Your task to perform on an android device: Open Chrome and go to settings Image 0: 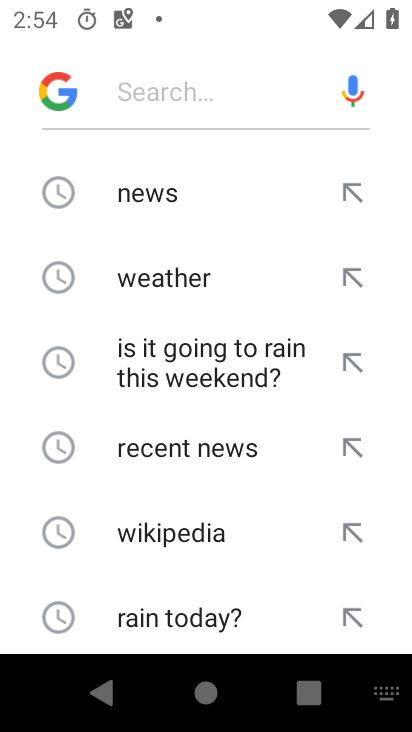
Step 0: press home button
Your task to perform on an android device: Open Chrome and go to settings Image 1: 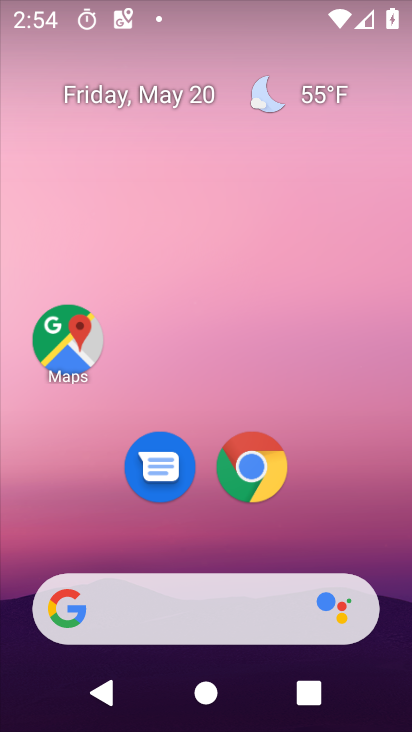
Step 1: click (239, 478)
Your task to perform on an android device: Open Chrome and go to settings Image 2: 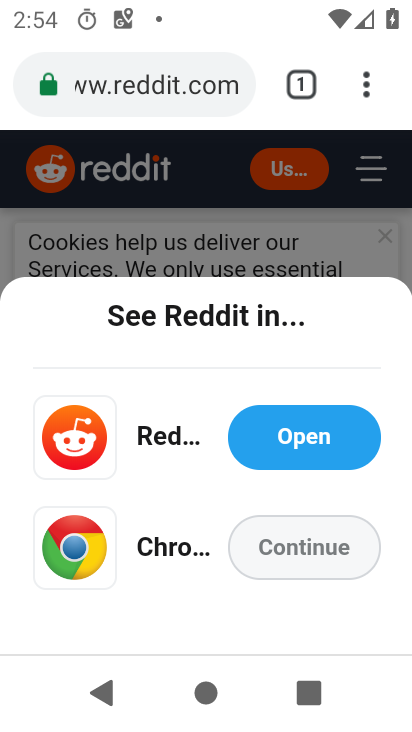
Step 2: click (374, 85)
Your task to perform on an android device: Open Chrome and go to settings Image 3: 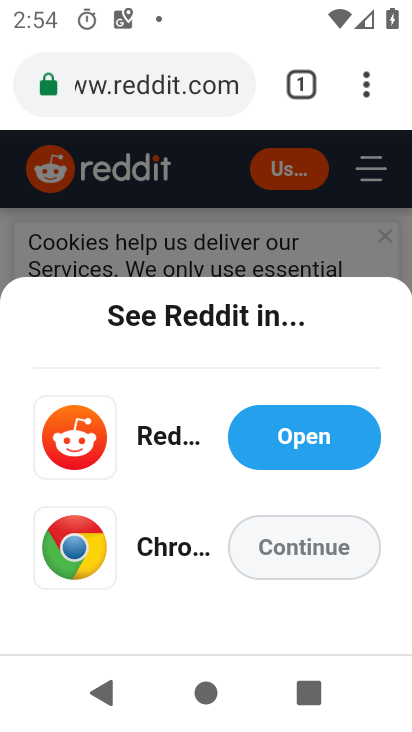
Step 3: click (362, 96)
Your task to perform on an android device: Open Chrome and go to settings Image 4: 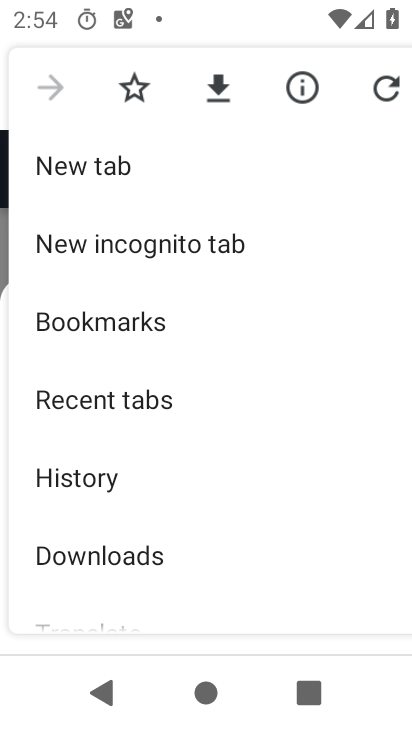
Step 4: drag from (150, 590) to (181, 327)
Your task to perform on an android device: Open Chrome and go to settings Image 5: 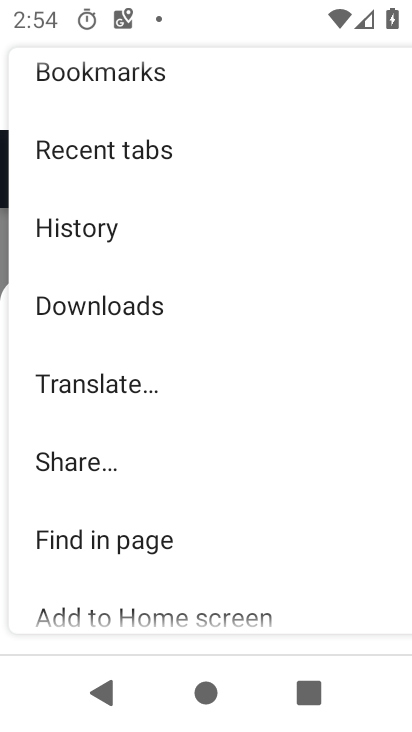
Step 5: drag from (95, 586) to (60, 309)
Your task to perform on an android device: Open Chrome and go to settings Image 6: 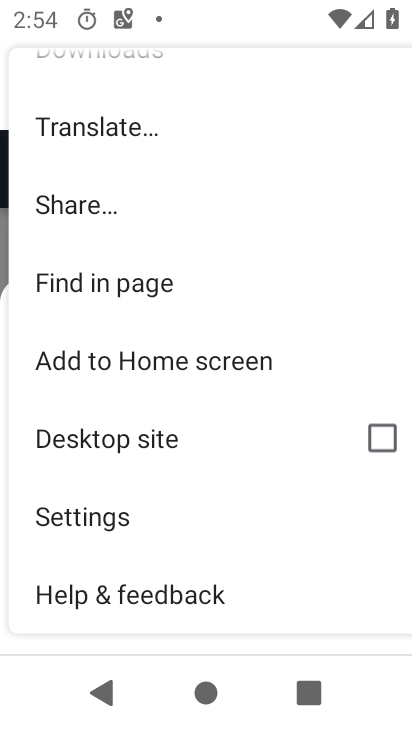
Step 6: click (67, 508)
Your task to perform on an android device: Open Chrome and go to settings Image 7: 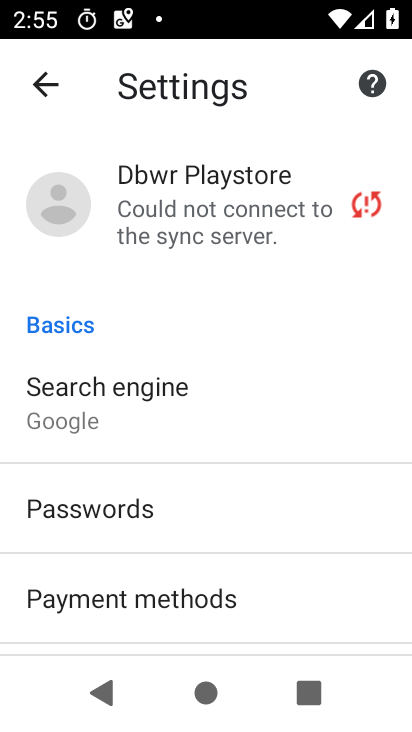
Step 7: task complete